Your task to perform on an android device: see sites visited before in the chrome app Image 0: 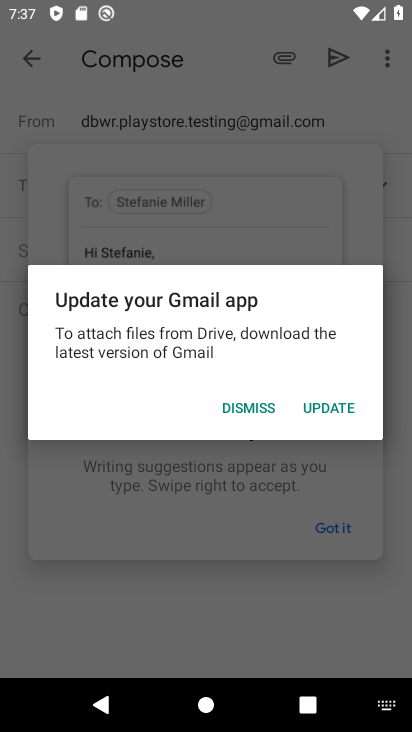
Step 0: press home button
Your task to perform on an android device: see sites visited before in the chrome app Image 1: 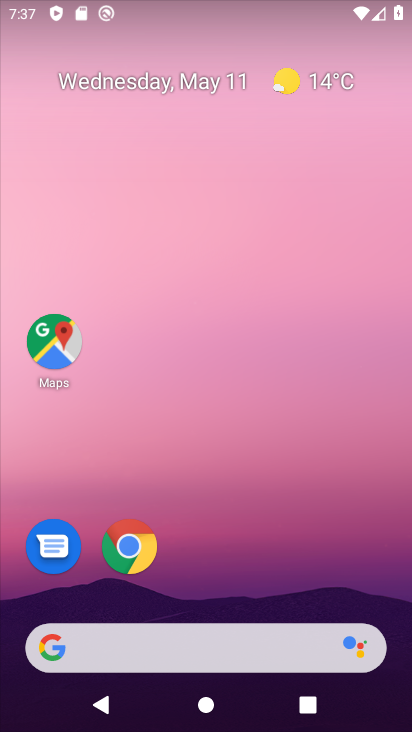
Step 1: click (137, 542)
Your task to perform on an android device: see sites visited before in the chrome app Image 2: 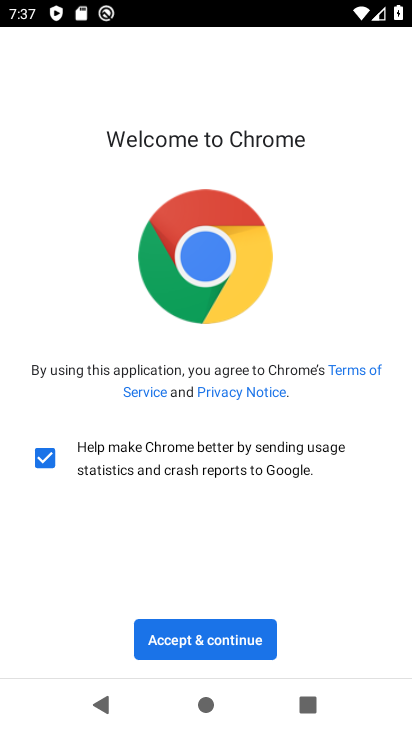
Step 2: click (216, 658)
Your task to perform on an android device: see sites visited before in the chrome app Image 3: 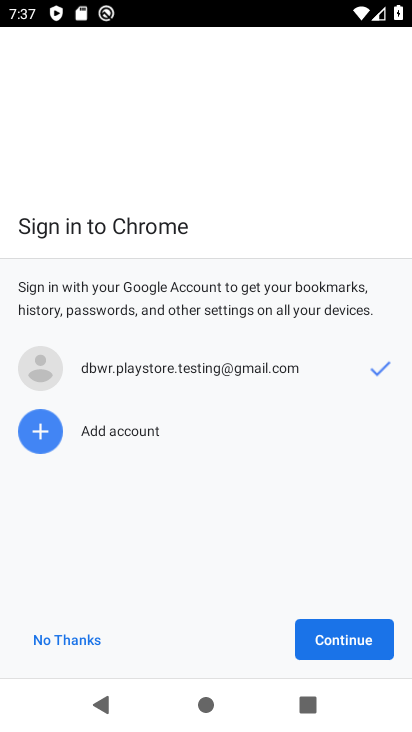
Step 3: click (321, 627)
Your task to perform on an android device: see sites visited before in the chrome app Image 4: 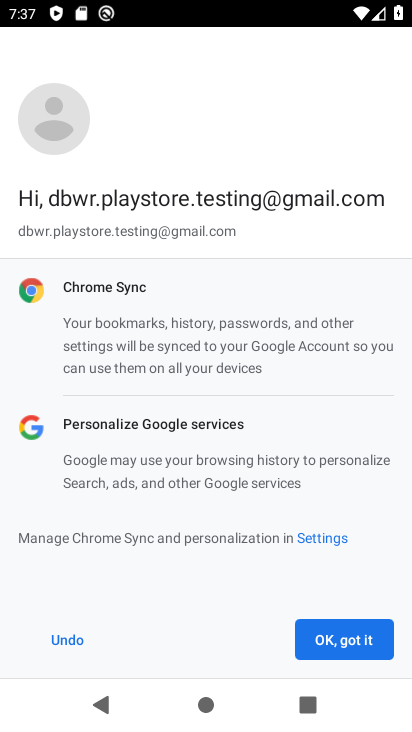
Step 4: click (319, 626)
Your task to perform on an android device: see sites visited before in the chrome app Image 5: 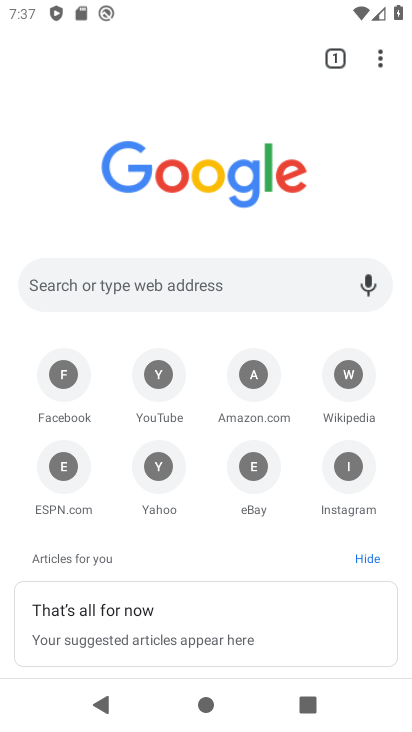
Step 5: click (391, 64)
Your task to perform on an android device: see sites visited before in the chrome app Image 6: 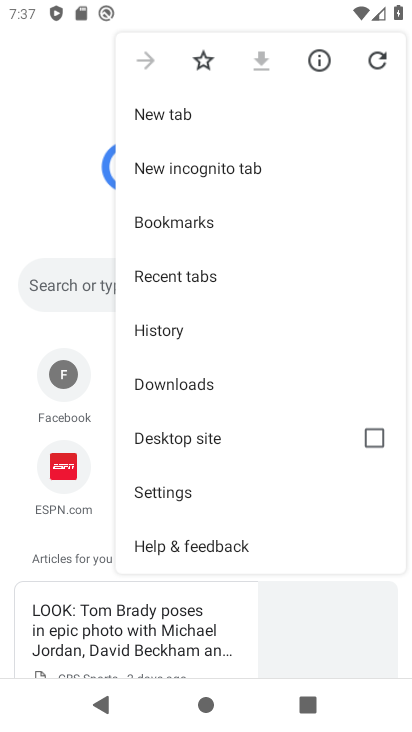
Step 6: click (213, 330)
Your task to perform on an android device: see sites visited before in the chrome app Image 7: 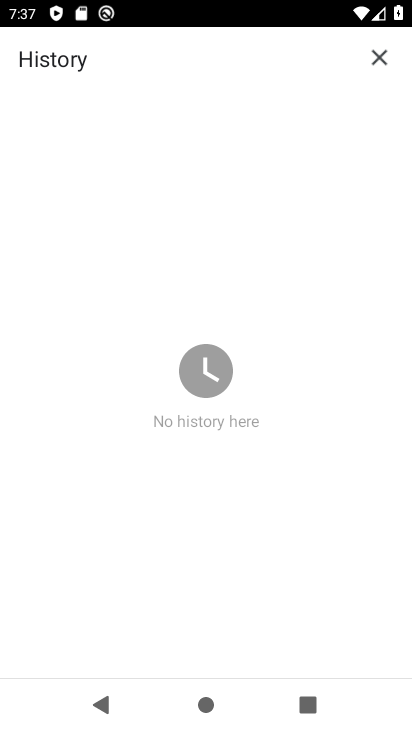
Step 7: task complete